Your task to perform on an android device: Open internet settings Image 0: 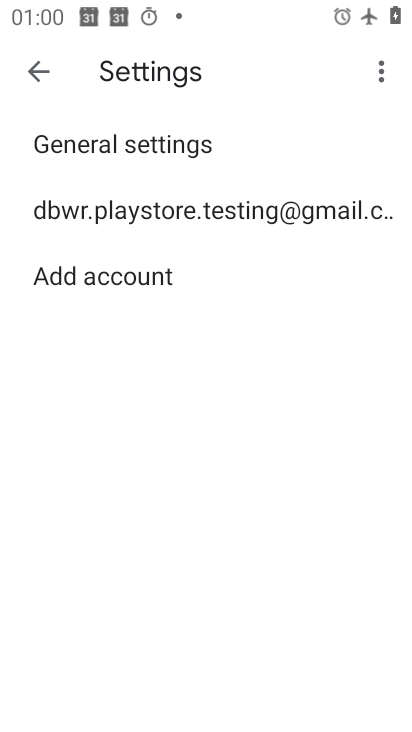
Step 0: press home button
Your task to perform on an android device: Open internet settings Image 1: 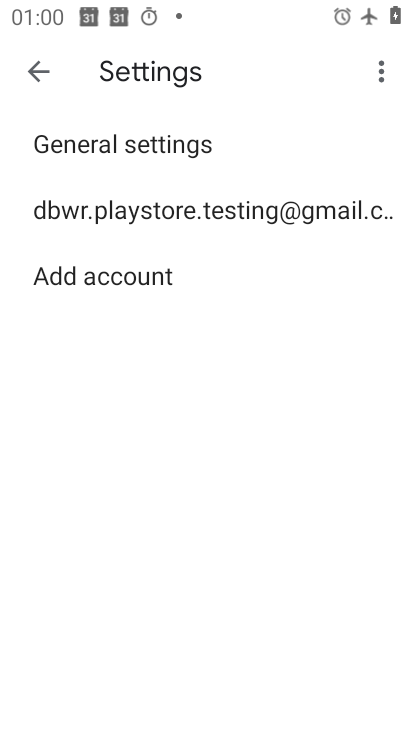
Step 1: press home button
Your task to perform on an android device: Open internet settings Image 2: 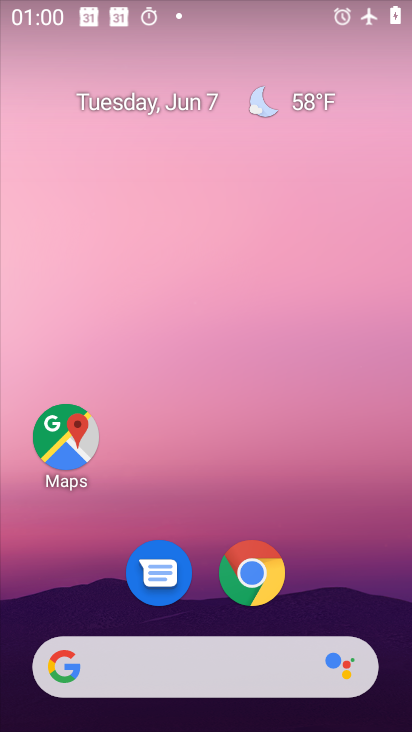
Step 2: drag from (328, 578) to (267, 101)
Your task to perform on an android device: Open internet settings Image 3: 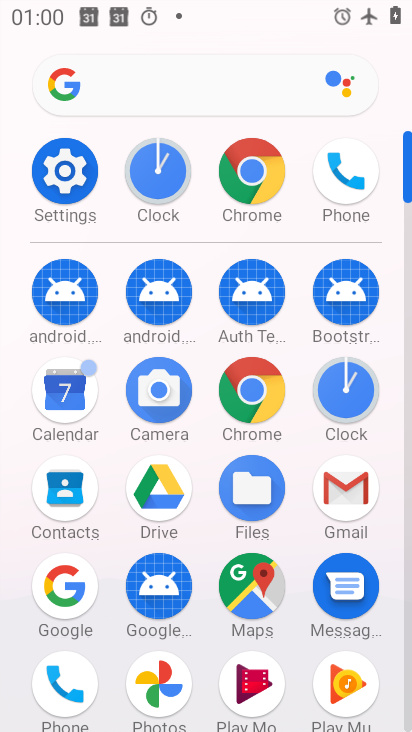
Step 3: click (83, 177)
Your task to perform on an android device: Open internet settings Image 4: 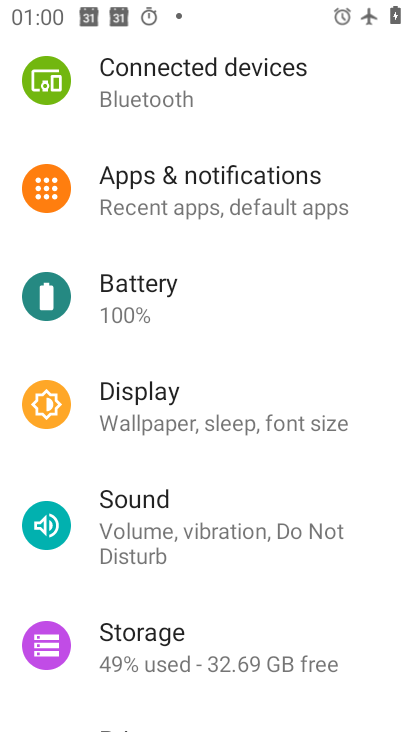
Step 4: drag from (246, 445) to (241, 368)
Your task to perform on an android device: Open internet settings Image 5: 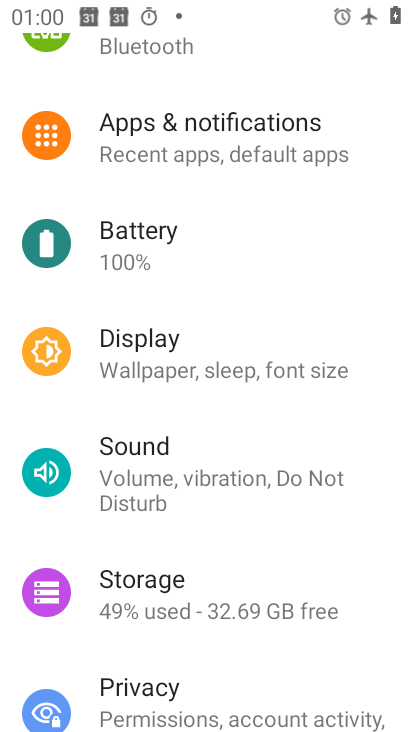
Step 5: drag from (241, 368) to (238, 671)
Your task to perform on an android device: Open internet settings Image 6: 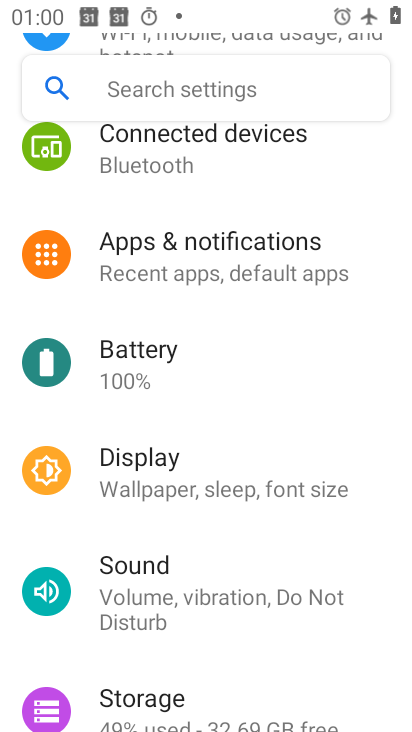
Step 6: drag from (148, 226) to (144, 499)
Your task to perform on an android device: Open internet settings Image 7: 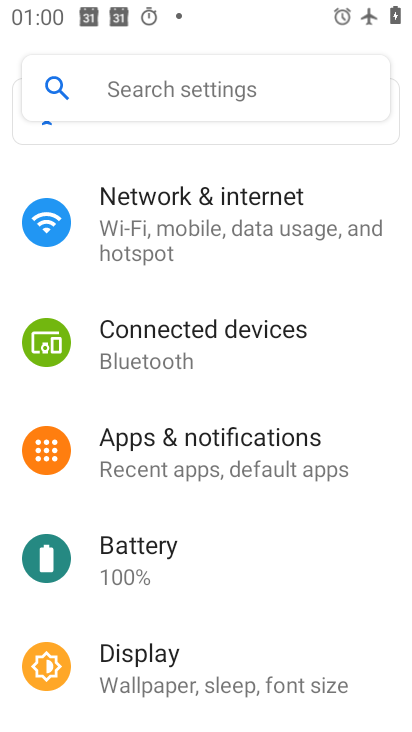
Step 7: click (130, 256)
Your task to perform on an android device: Open internet settings Image 8: 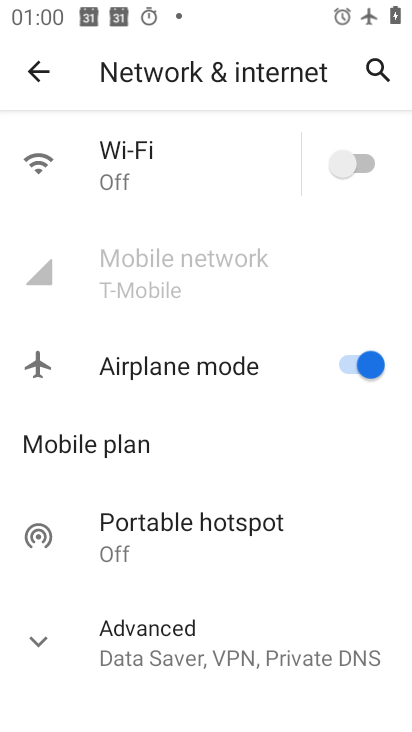
Step 8: task complete